Your task to perform on an android device: find which apps use the phone's location Image 0: 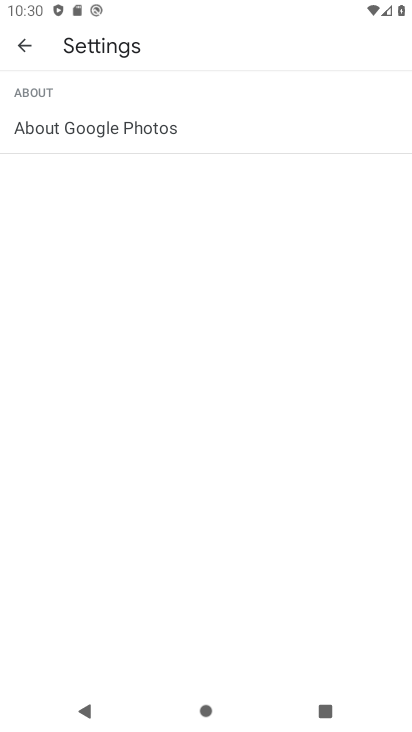
Step 0: press home button
Your task to perform on an android device: find which apps use the phone's location Image 1: 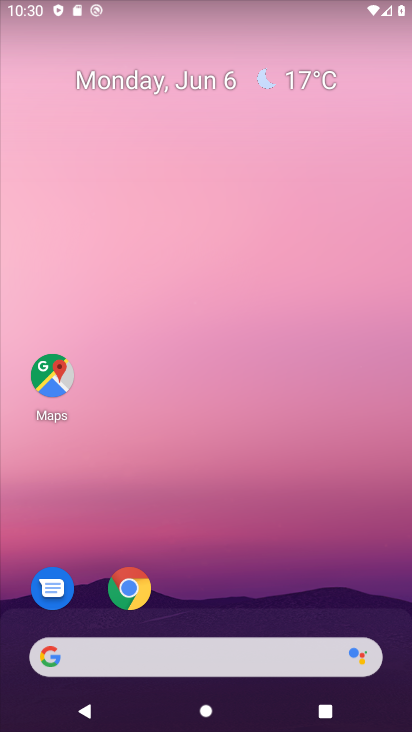
Step 1: drag from (153, 623) to (261, 98)
Your task to perform on an android device: find which apps use the phone's location Image 2: 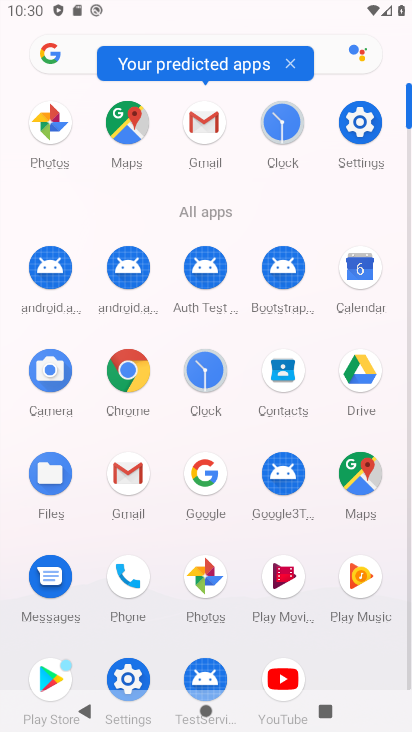
Step 2: click (134, 678)
Your task to perform on an android device: find which apps use the phone's location Image 3: 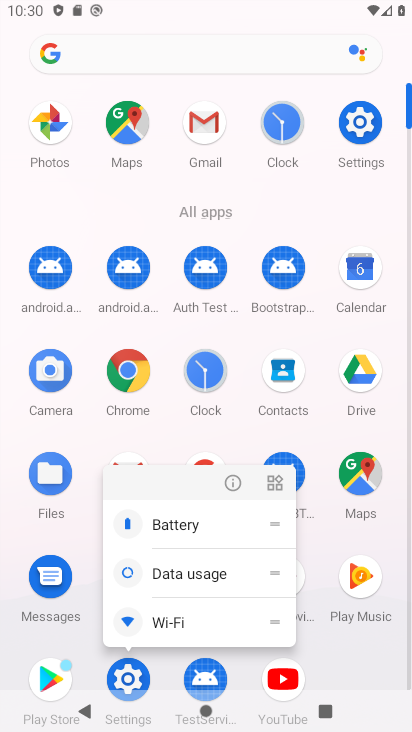
Step 3: click (133, 678)
Your task to perform on an android device: find which apps use the phone's location Image 4: 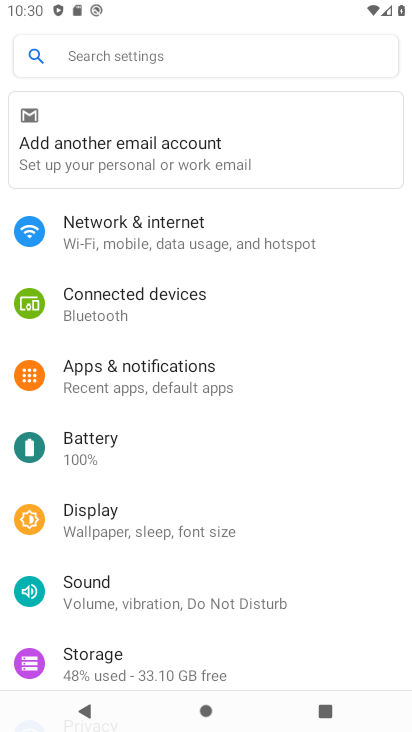
Step 4: drag from (178, 580) to (268, 232)
Your task to perform on an android device: find which apps use the phone's location Image 5: 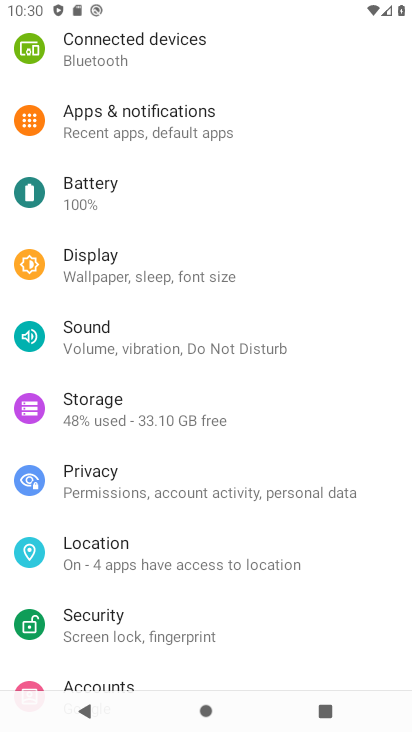
Step 5: click (180, 576)
Your task to perform on an android device: find which apps use the phone's location Image 6: 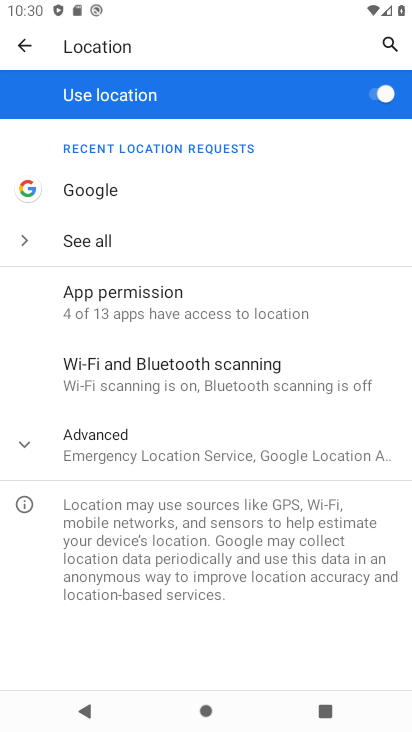
Step 6: click (168, 317)
Your task to perform on an android device: find which apps use the phone's location Image 7: 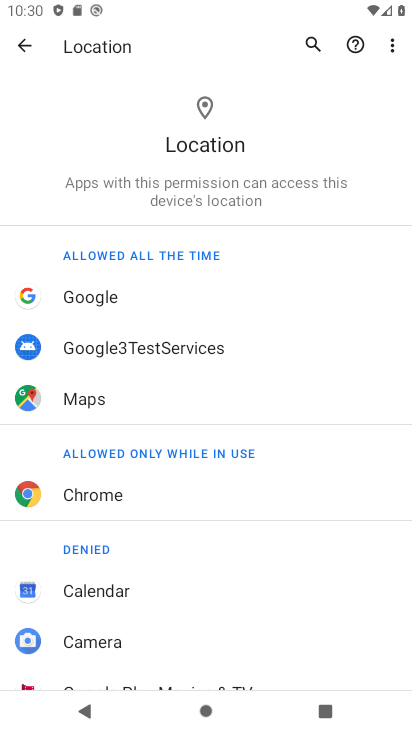
Step 7: task complete